Your task to perform on an android device: check android version Image 0: 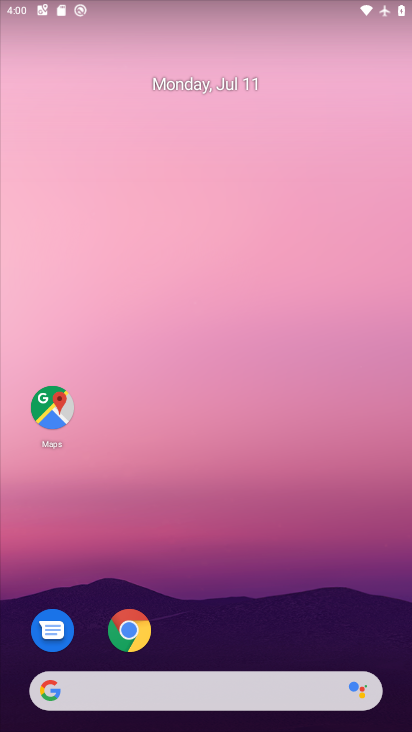
Step 0: drag from (266, 653) to (202, 110)
Your task to perform on an android device: check android version Image 1: 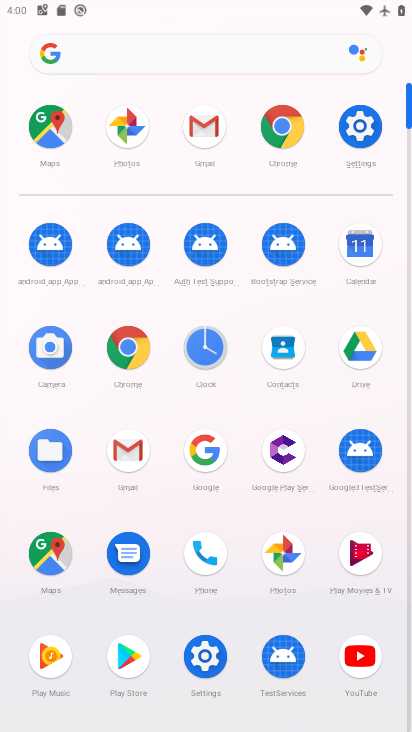
Step 1: click (369, 127)
Your task to perform on an android device: check android version Image 2: 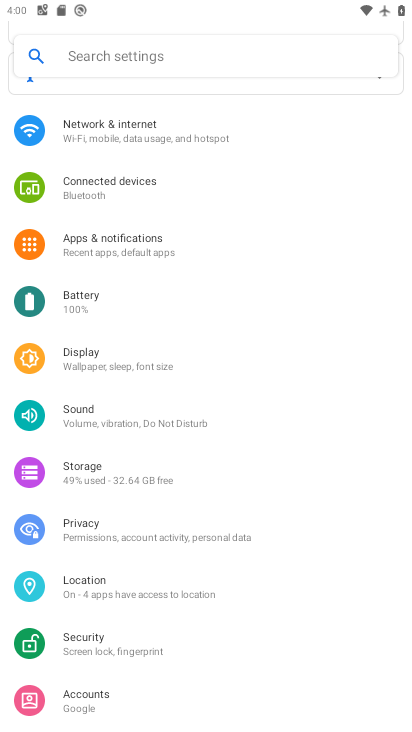
Step 2: drag from (232, 655) to (218, 260)
Your task to perform on an android device: check android version Image 3: 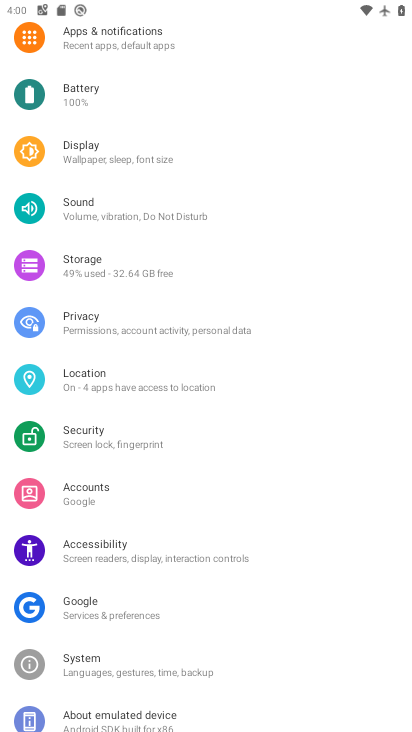
Step 3: drag from (242, 650) to (167, 156)
Your task to perform on an android device: check android version Image 4: 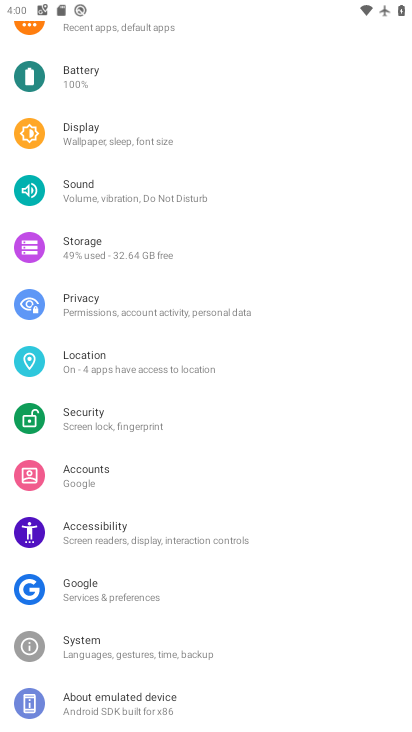
Step 4: click (222, 694)
Your task to perform on an android device: check android version Image 5: 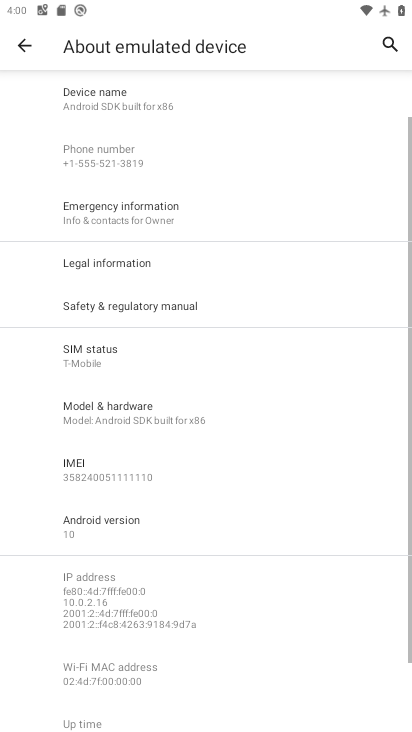
Step 5: drag from (206, 665) to (173, 253)
Your task to perform on an android device: check android version Image 6: 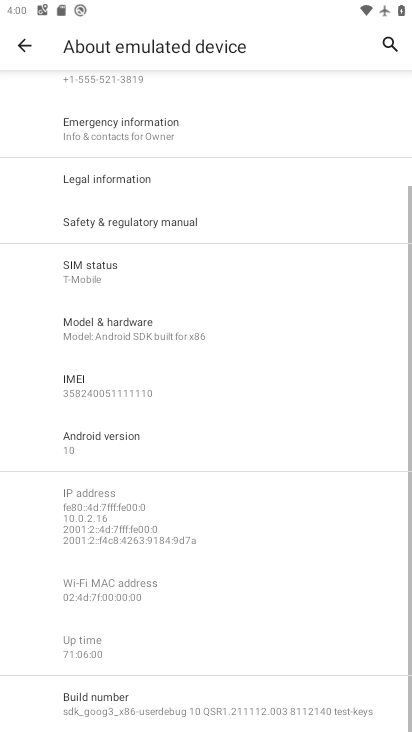
Step 6: click (164, 454)
Your task to perform on an android device: check android version Image 7: 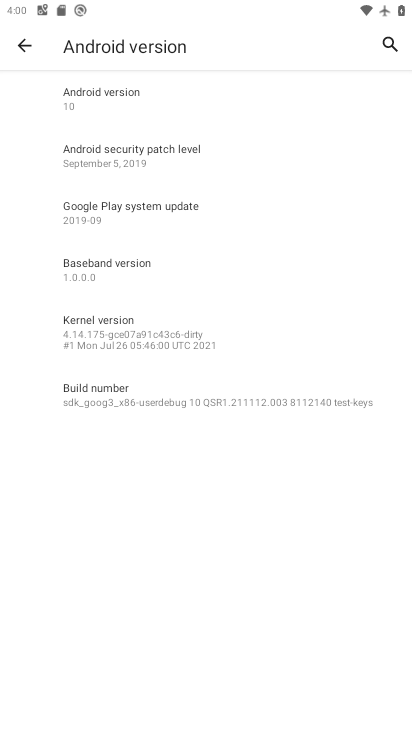
Step 7: click (98, 88)
Your task to perform on an android device: check android version Image 8: 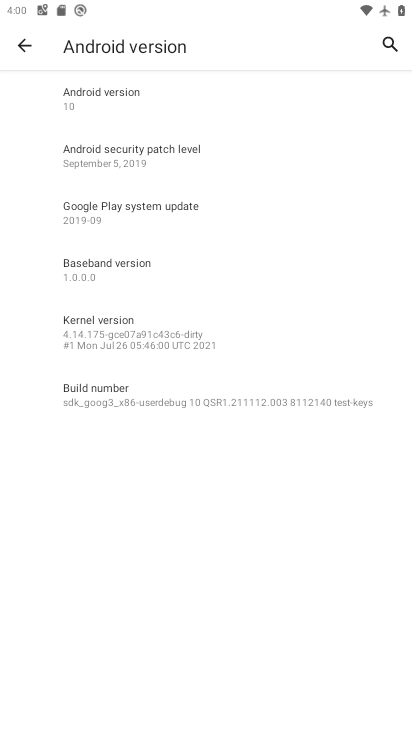
Step 8: task complete